Your task to perform on an android device: turn off location Image 0: 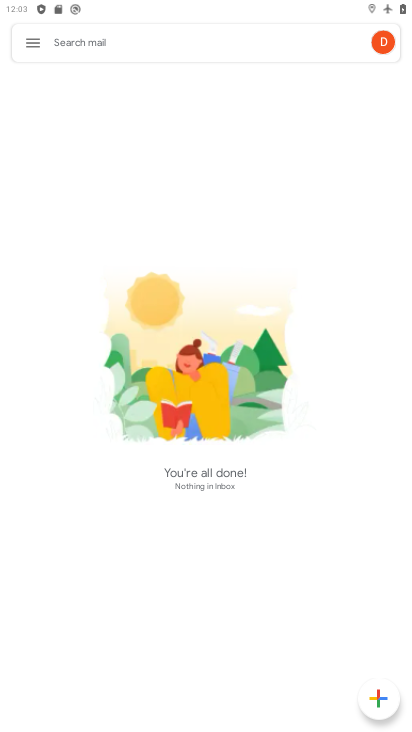
Step 0: press home button
Your task to perform on an android device: turn off location Image 1: 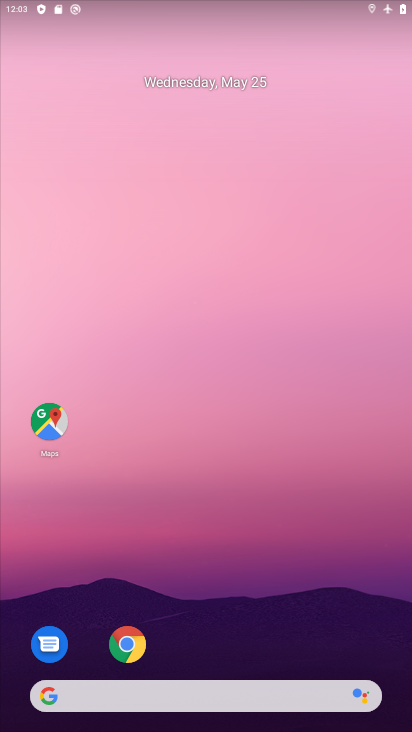
Step 1: drag from (245, 558) to (208, 59)
Your task to perform on an android device: turn off location Image 2: 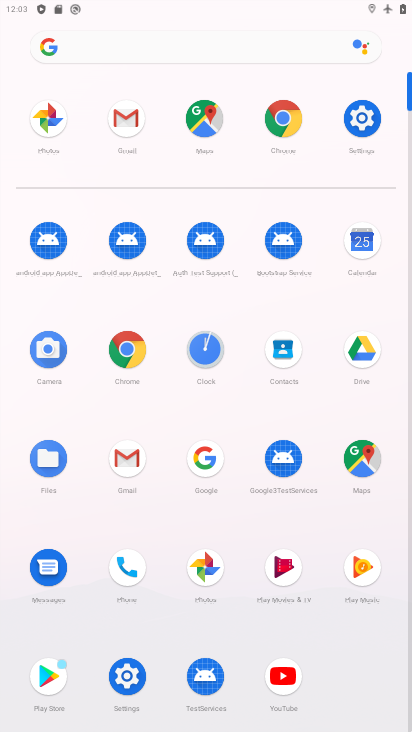
Step 2: click (356, 113)
Your task to perform on an android device: turn off location Image 3: 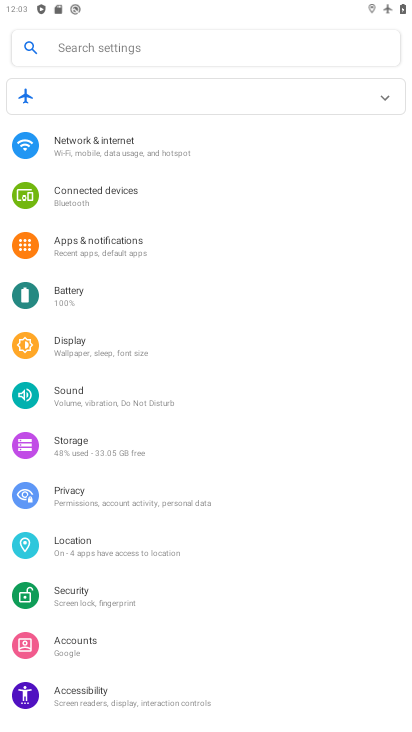
Step 3: click (77, 531)
Your task to perform on an android device: turn off location Image 4: 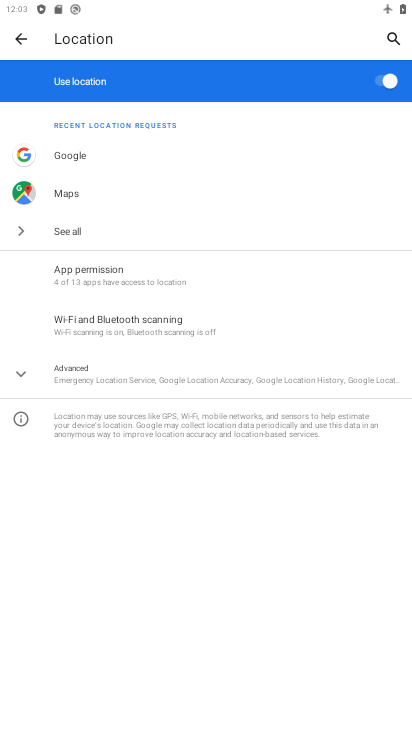
Step 4: task complete